Your task to perform on an android device: Go to Google Image 0: 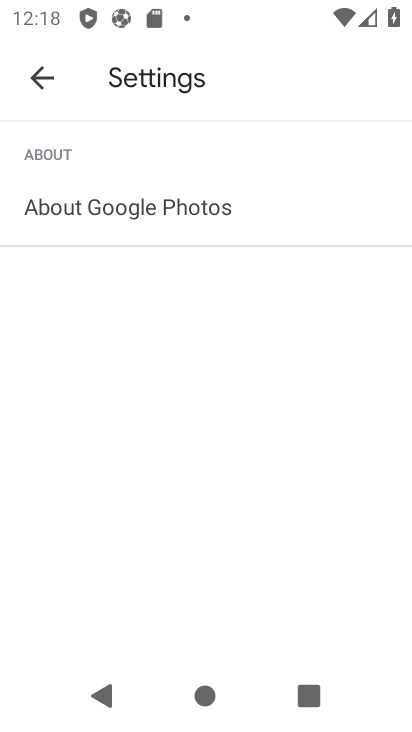
Step 0: press home button
Your task to perform on an android device: Go to Google Image 1: 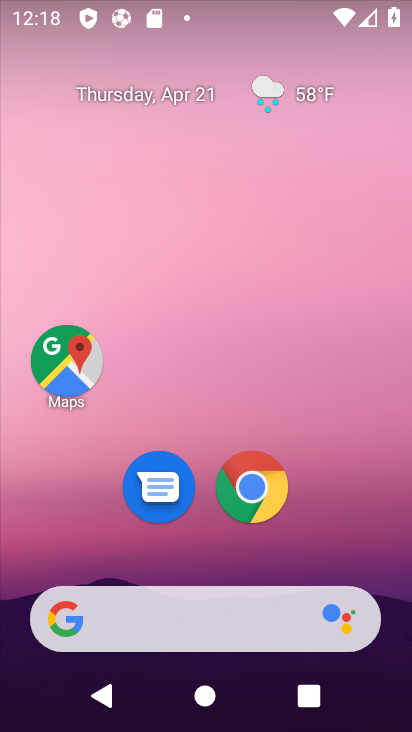
Step 1: drag from (385, 569) to (359, 3)
Your task to perform on an android device: Go to Google Image 2: 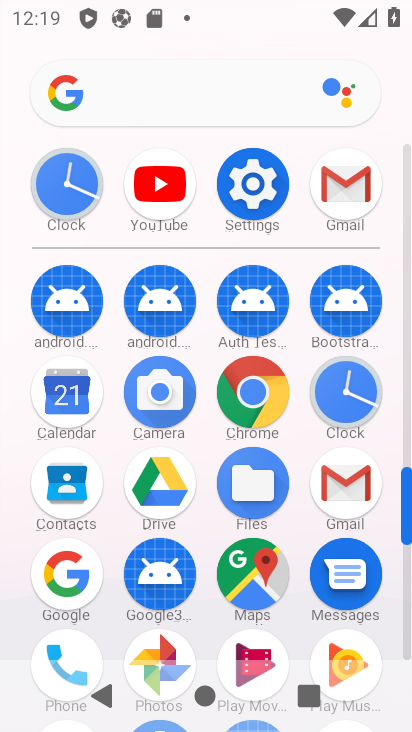
Step 2: click (70, 576)
Your task to perform on an android device: Go to Google Image 3: 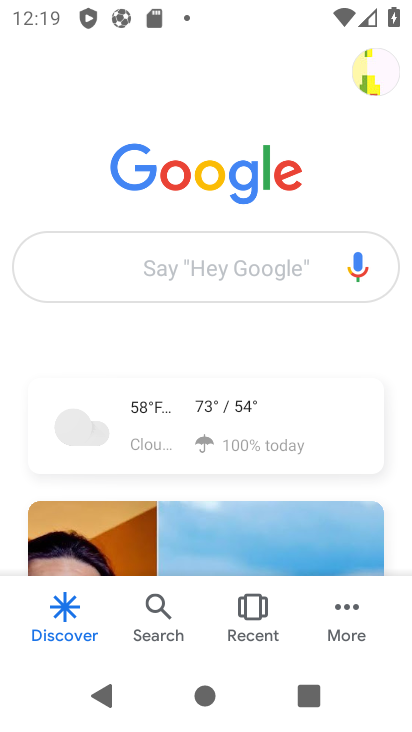
Step 3: task complete